Your task to perform on an android device: check data usage Image 0: 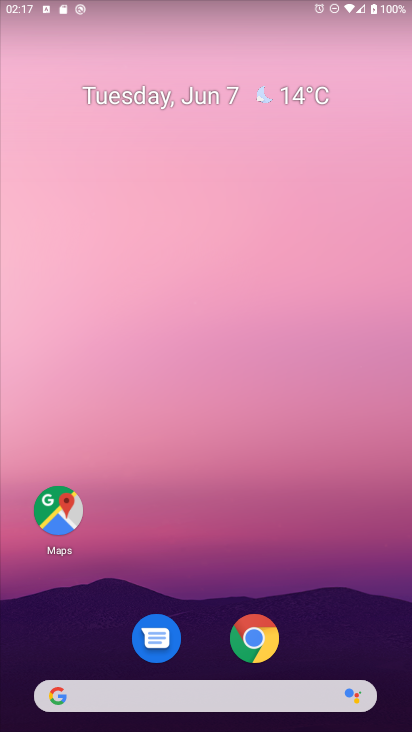
Step 0: drag from (283, 707) to (291, 197)
Your task to perform on an android device: check data usage Image 1: 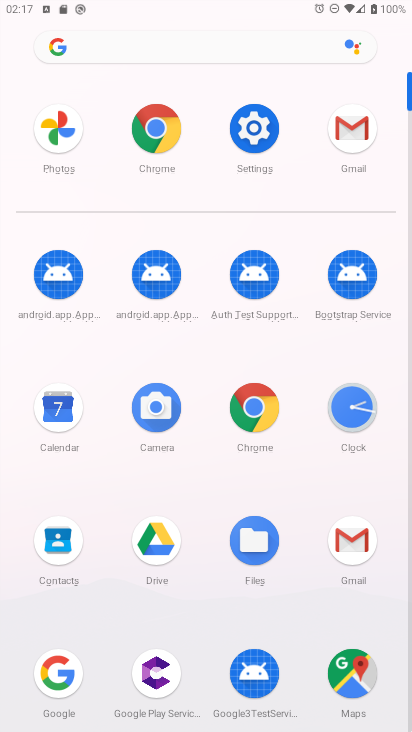
Step 1: click (255, 146)
Your task to perform on an android device: check data usage Image 2: 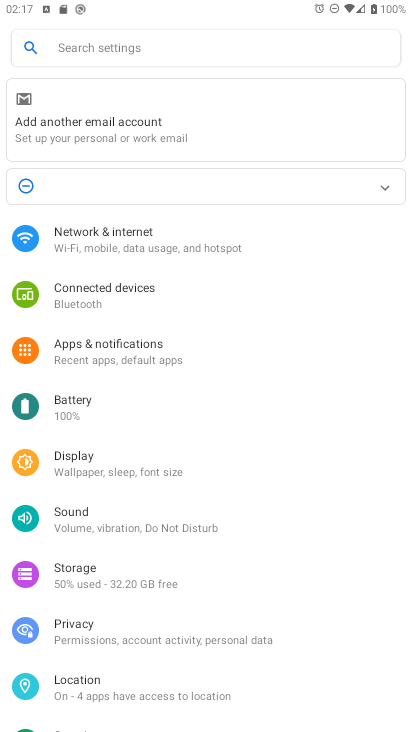
Step 2: click (116, 51)
Your task to perform on an android device: check data usage Image 3: 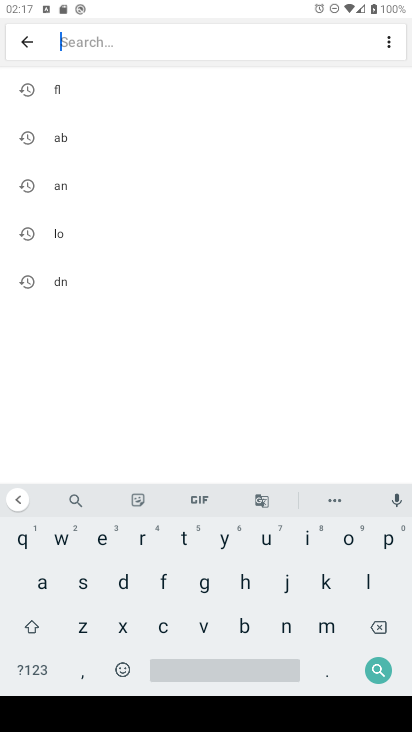
Step 3: click (117, 588)
Your task to perform on an android device: check data usage Image 4: 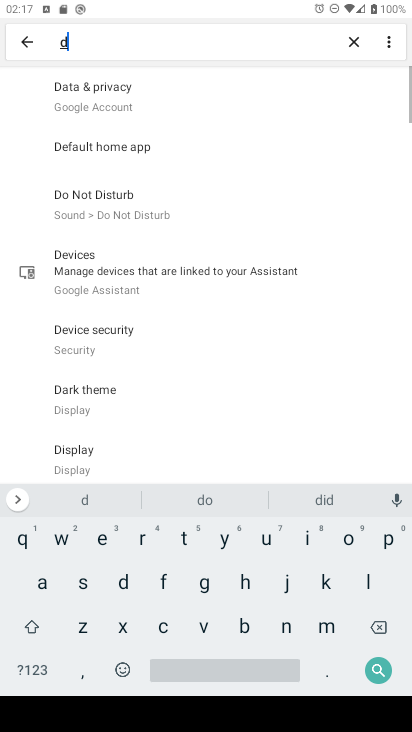
Step 4: click (39, 586)
Your task to perform on an android device: check data usage Image 5: 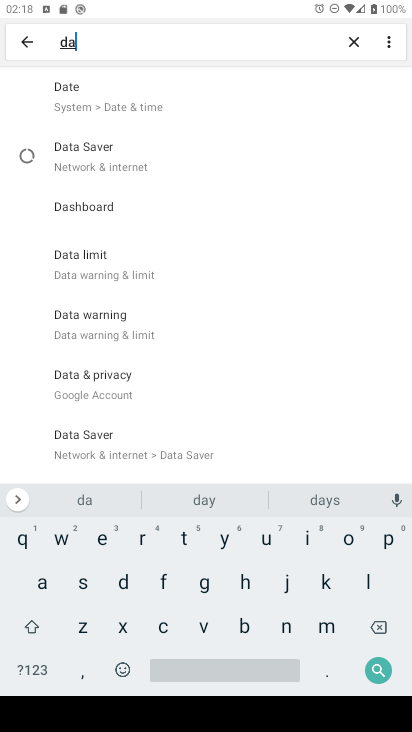
Step 5: click (177, 533)
Your task to perform on an android device: check data usage Image 6: 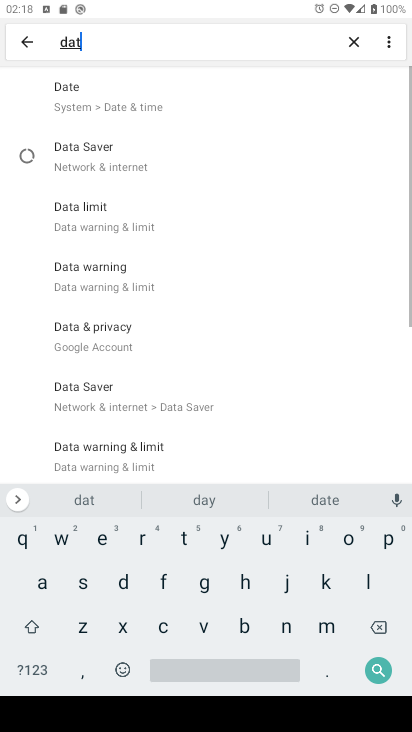
Step 6: click (31, 581)
Your task to perform on an android device: check data usage Image 7: 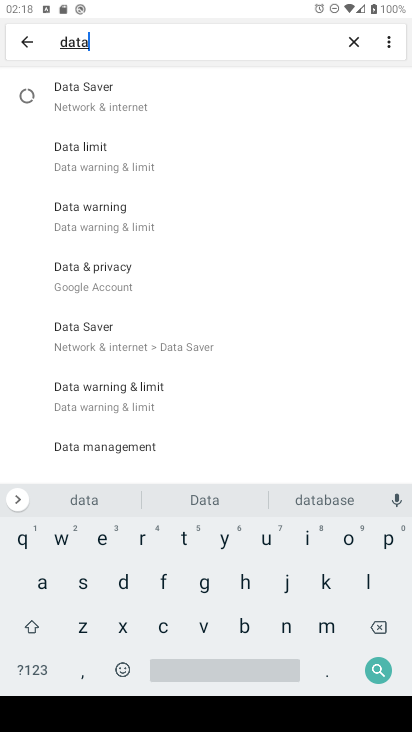
Step 7: click (234, 659)
Your task to perform on an android device: check data usage Image 8: 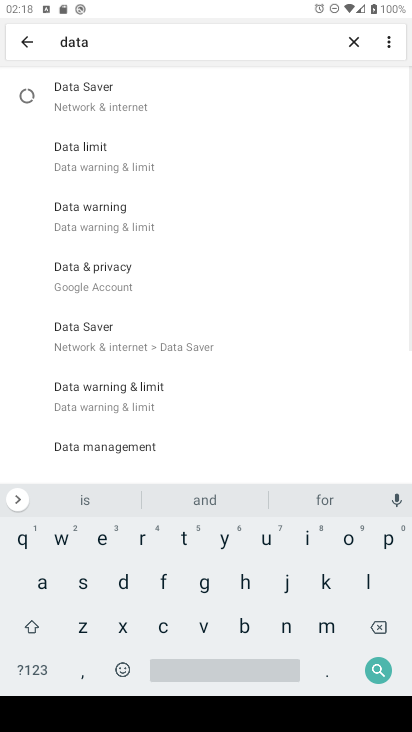
Step 8: click (260, 538)
Your task to perform on an android device: check data usage Image 9: 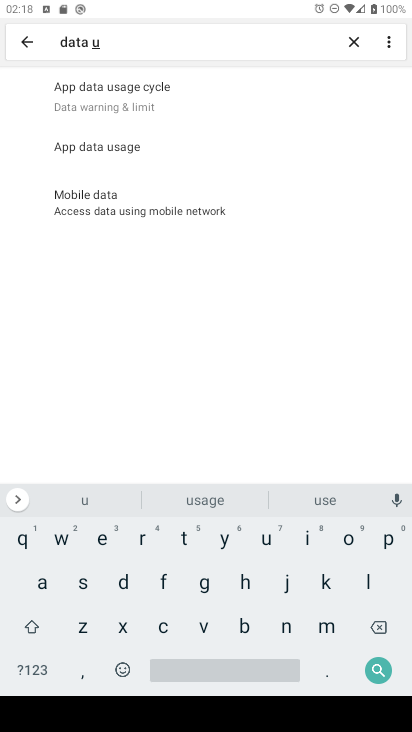
Step 9: click (106, 149)
Your task to perform on an android device: check data usage Image 10: 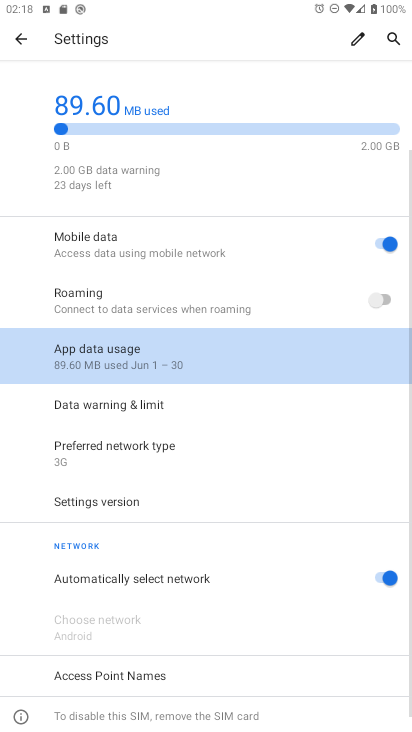
Step 10: click (243, 358)
Your task to perform on an android device: check data usage Image 11: 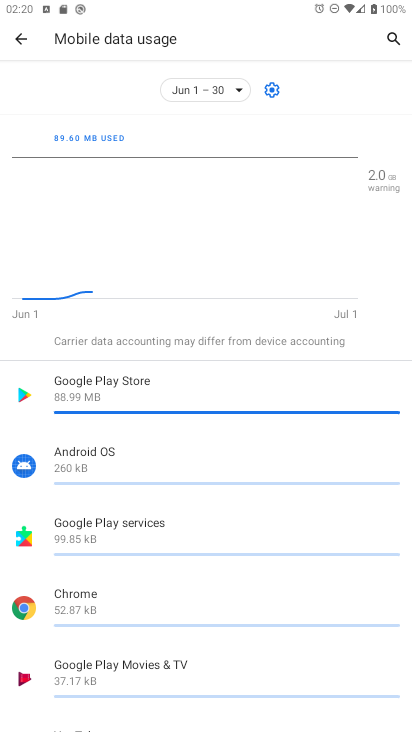
Step 11: task complete